Your task to perform on an android device: Open Google Chrome and open the bookmarks view Image 0: 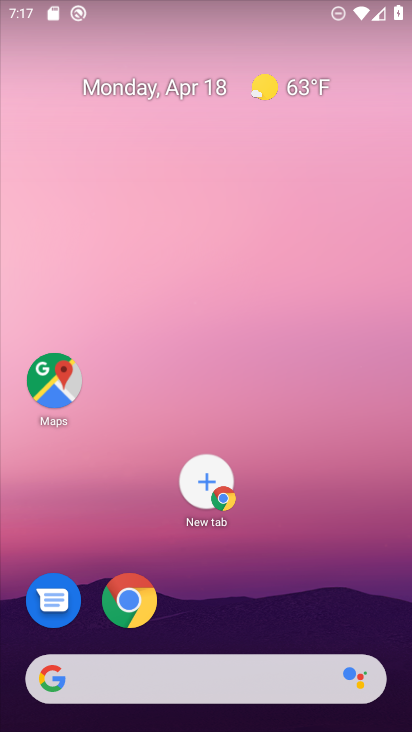
Step 0: click (128, 602)
Your task to perform on an android device: Open Google Chrome and open the bookmarks view Image 1: 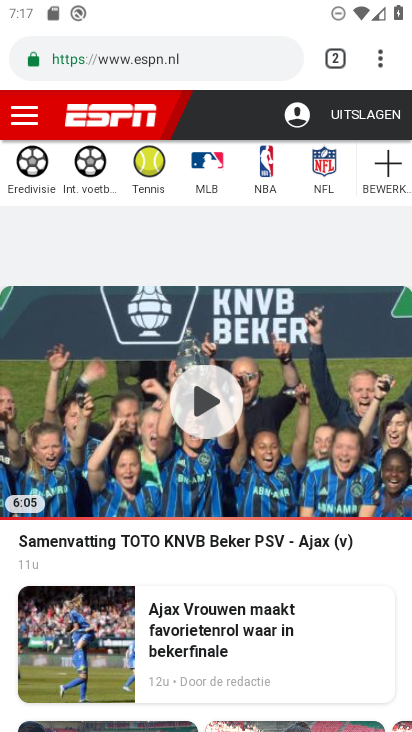
Step 1: click (380, 56)
Your task to perform on an android device: Open Google Chrome and open the bookmarks view Image 2: 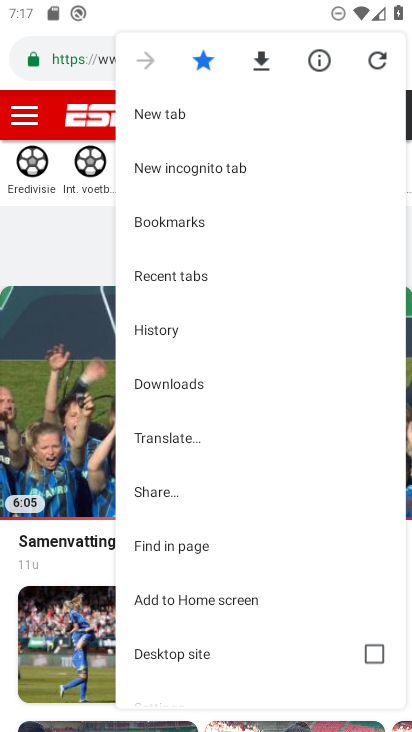
Step 2: click (182, 220)
Your task to perform on an android device: Open Google Chrome and open the bookmarks view Image 3: 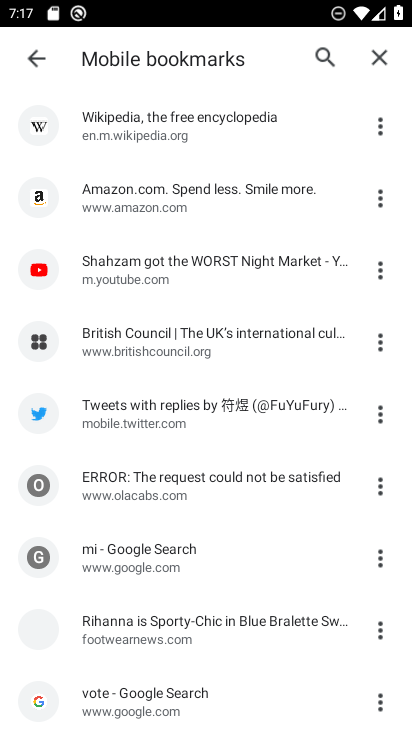
Step 3: click (254, 115)
Your task to perform on an android device: Open Google Chrome and open the bookmarks view Image 4: 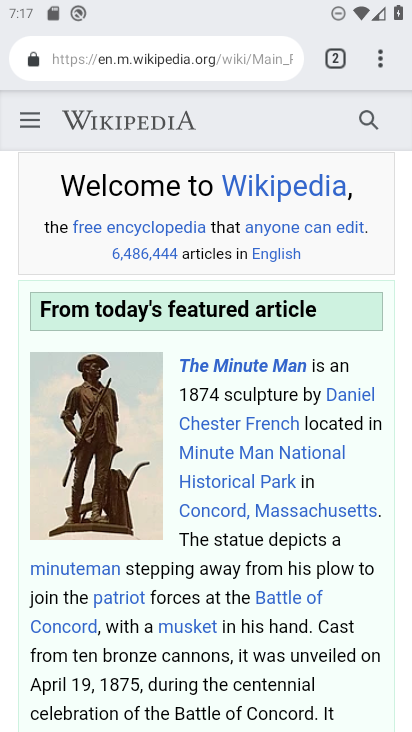
Step 4: task complete